Your task to perform on an android device: choose inbox layout in the gmail app Image 0: 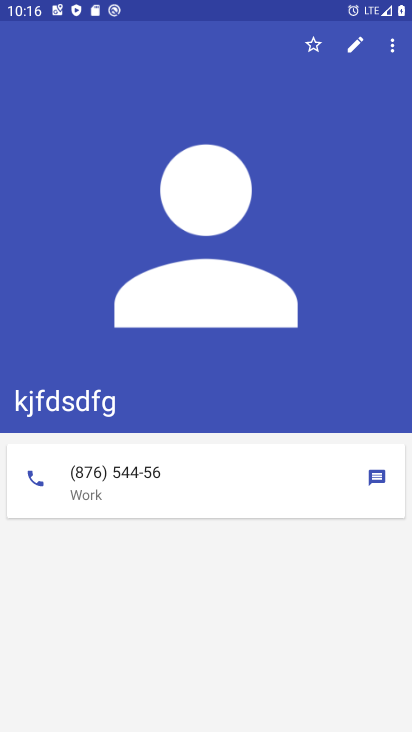
Step 0: press home button
Your task to perform on an android device: choose inbox layout in the gmail app Image 1: 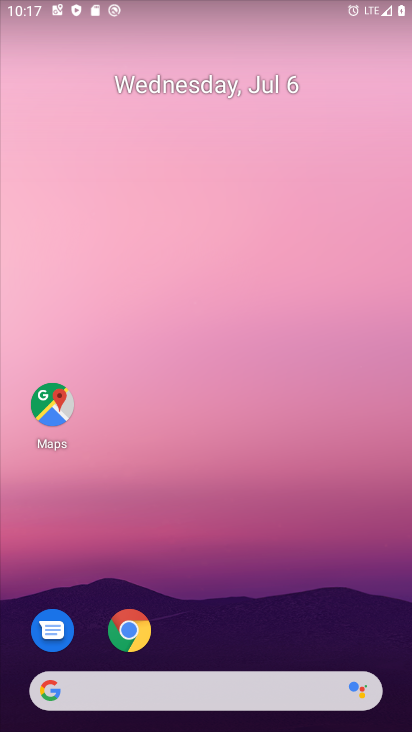
Step 1: drag from (365, 623) to (300, 148)
Your task to perform on an android device: choose inbox layout in the gmail app Image 2: 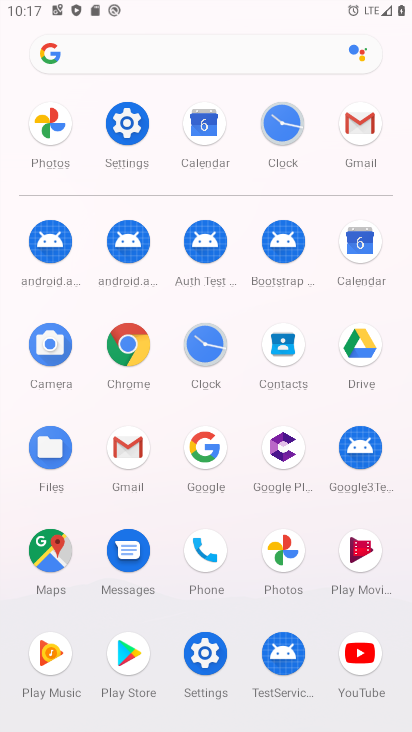
Step 2: click (129, 442)
Your task to perform on an android device: choose inbox layout in the gmail app Image 3: 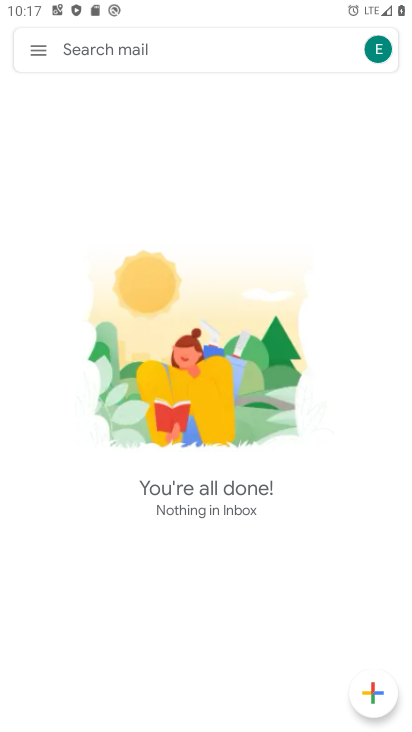
Step 3: click (37, 50)
Your task to perform on an android device: choose inbox layout in the gmail app Image 4: 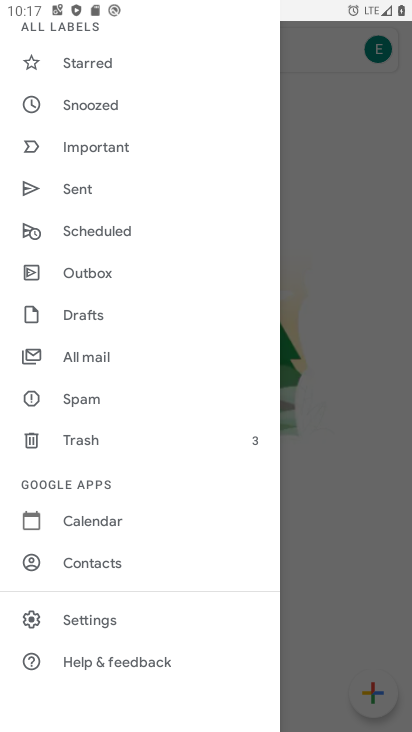
Step 4: click (101, 608)
Your task to perform on an android device: choose inbox layout in the gmail app Image 5: 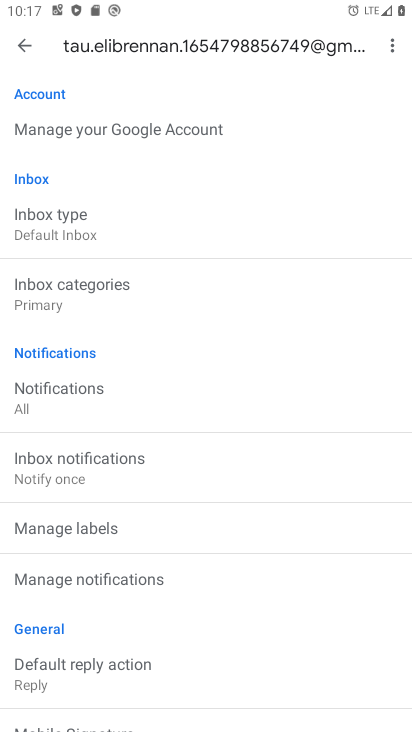
Step 5: click (52, 229)
Your task to perform on an android device: choose inbox layout in the gmail app Image 6: 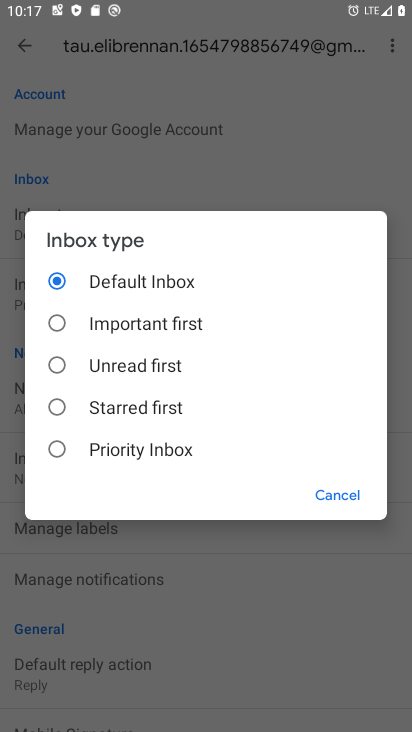
Step 6: click (53, 319)
Your task to perform on an android device: choose inbox layout in the gmail app Image 7: 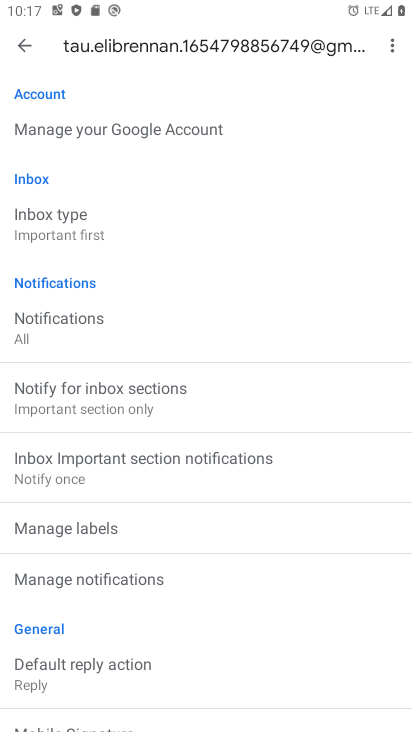
Step 7: task complete